Your task to perform on an android device: toggle improve location accuracy Image 0: 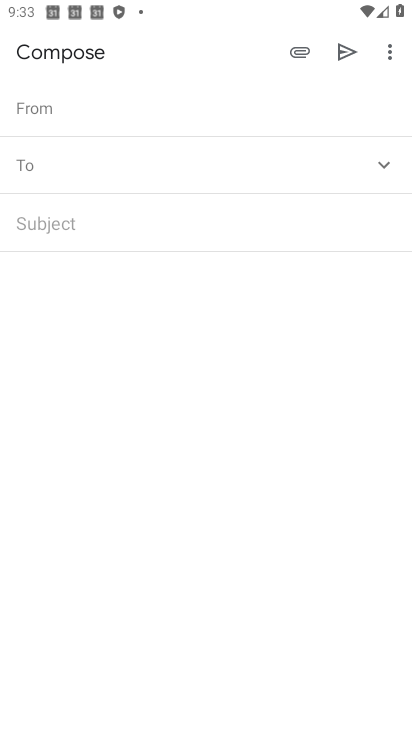
Step 0: click (192, 657)
Your task to perform on an android device: toggle improve location accuracy Image 1: 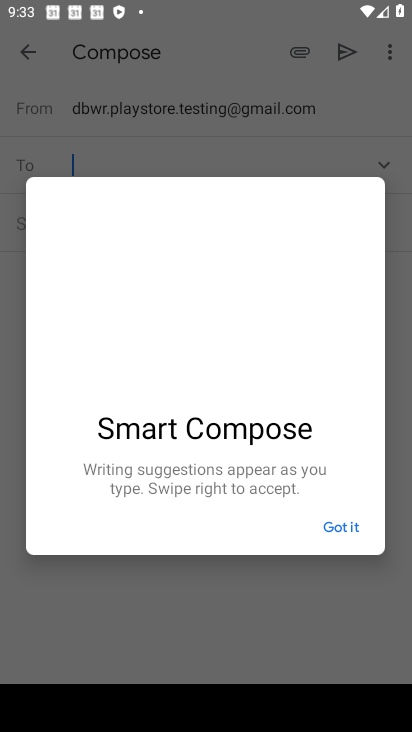
Step 1: press home button
Your task to perform on an android device: toggle improve location accuracy Image 2: 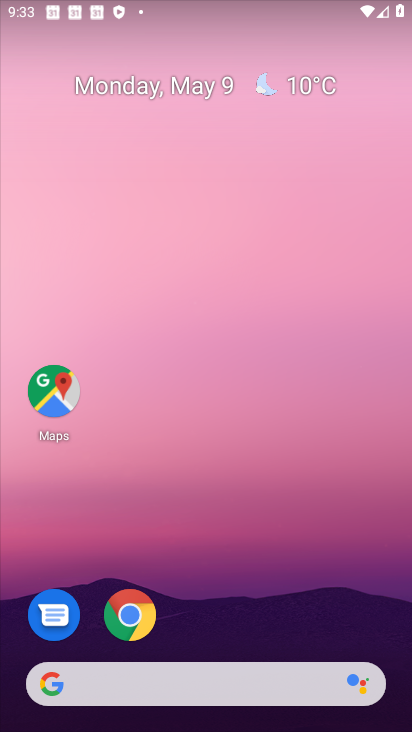
Step 2: drag from (198, 659) to (302, 17)
Your task to perform on an android device: toggle improve location accuracy Image 3: 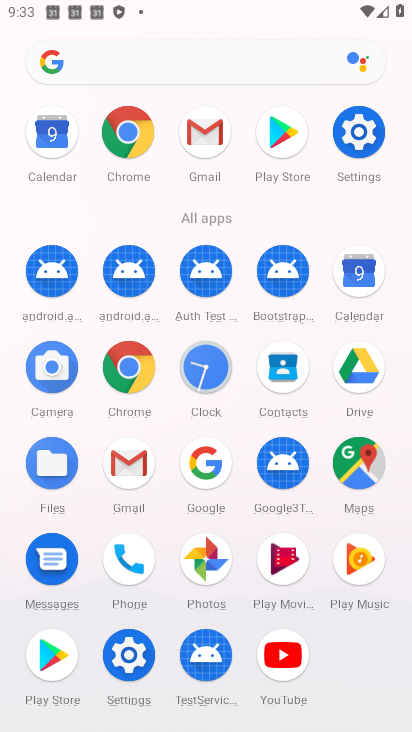
Step 3: click (366, 146)
Your task to perform on an android device: toggle improve location accuracy Image 4: 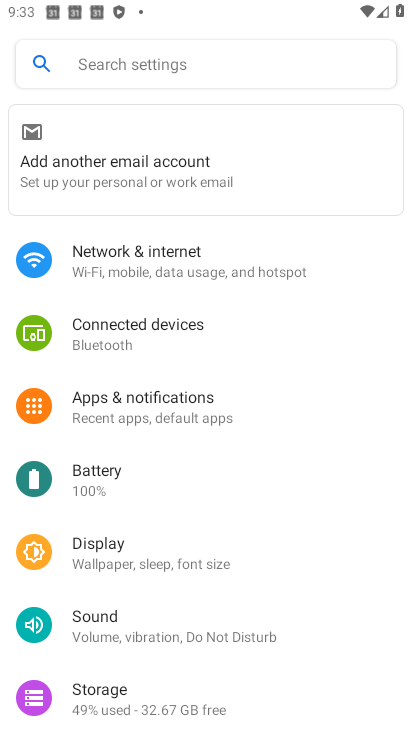
Step 4: drag from (166, 631) to (248, 278)
Your task to perform on an android device: toggle improve location accuracy Image 5: 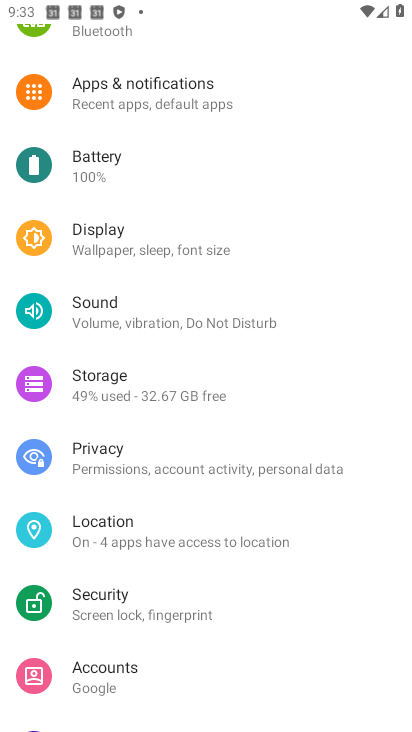
Step 5: click (151, 524)
Your task to perform on an android device: toggle improve location accuracy Image 6: 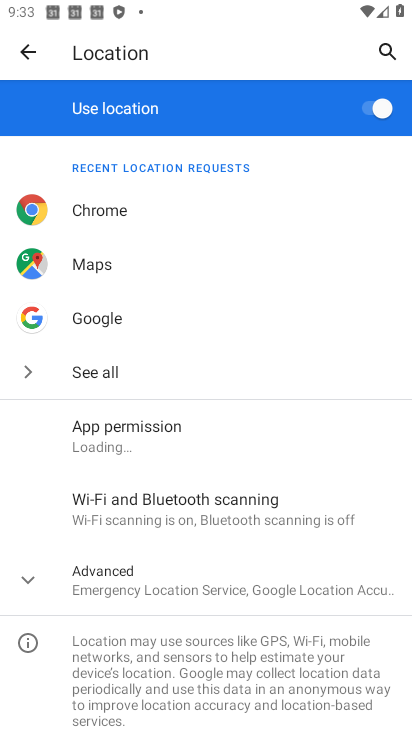
Step 6: click (145, 588)
Your task to perform on an android device: toggle improve location accuracy Image 7: 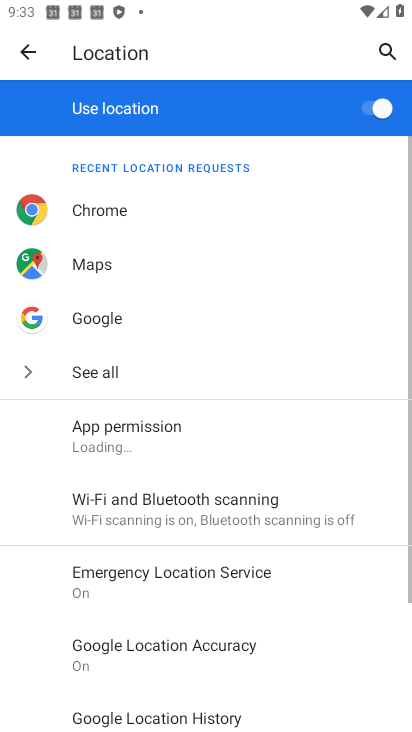
Step 7: drag from (224, 606) to (258, 396)
Your task to perform on an android device: toggle improve location accuracy Image 8: 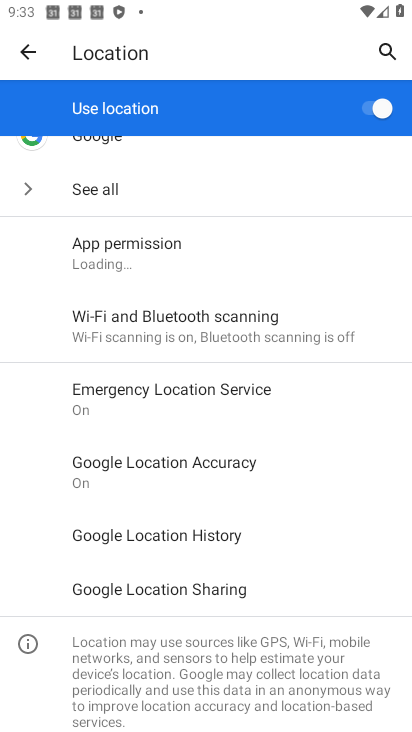
Step 8: click (193, 469)
Your task to perform on an android device: toggle improve location accuracy Image 9: 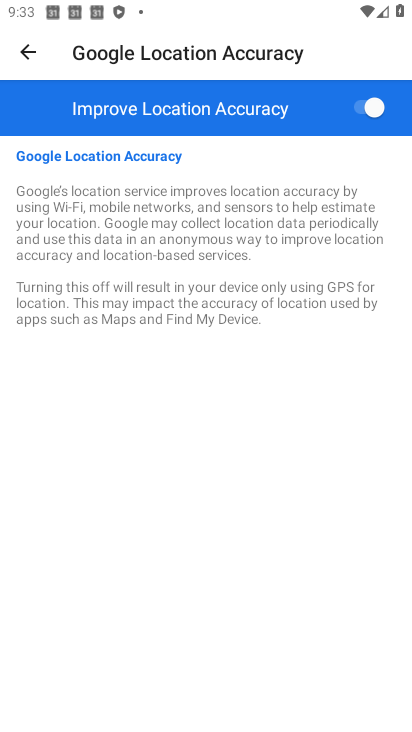
Step 9: task complete